Your task to perform on an android device: turn off sleep mode Image 0: 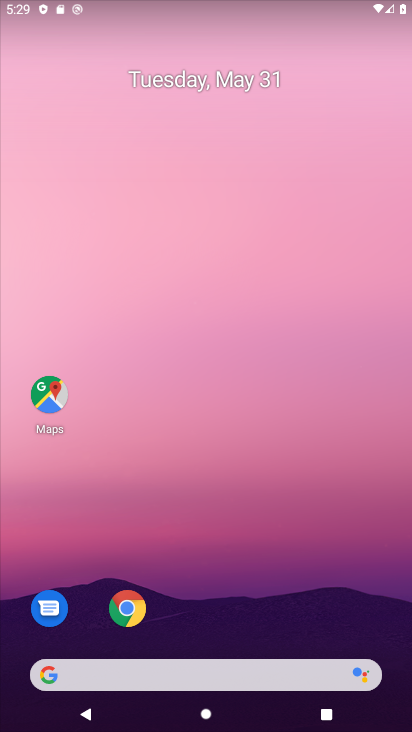
Step 0: drag from (272, 658) to (273, 111)
Your task to perform on an android device: turn off sleep mode Image 1: 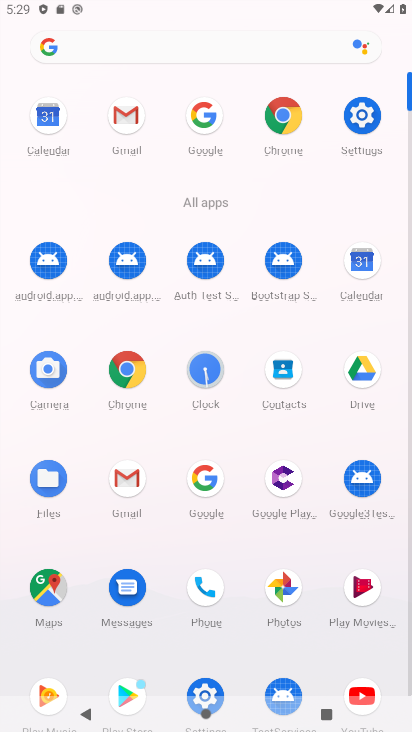
Step 1: click (363, 110)
Your task to perform on an android device: turn off sleep mode Image 2: 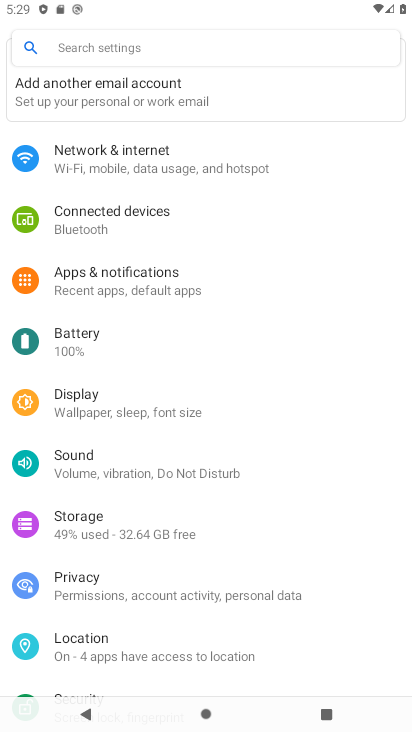
Step 2: click (122, 413)
Your task to perform on an android device: turn off sleep mode Image 3: 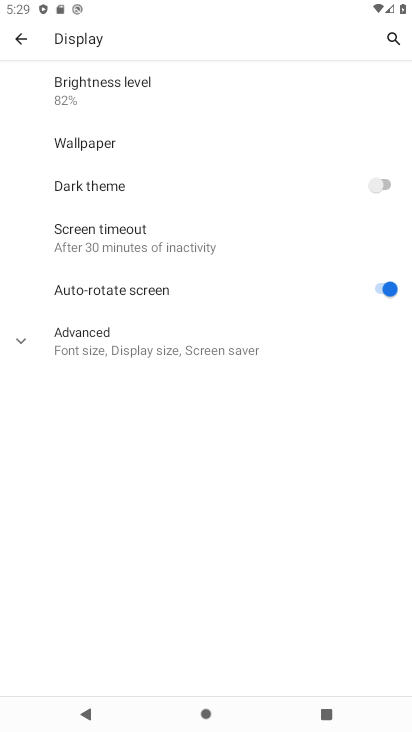
Step 3: click (90, 353)
Your task to perform on an android device: turn off sleep mode Image 4: 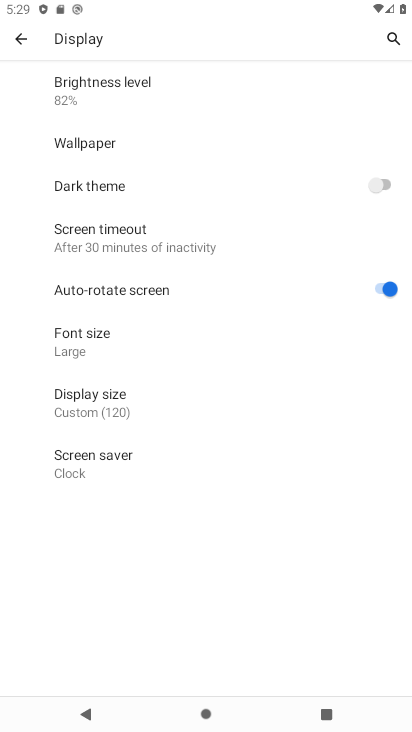
Step 4: click (172, 250)
Your task to perform on an android device: turn off sleep mode Image 5: 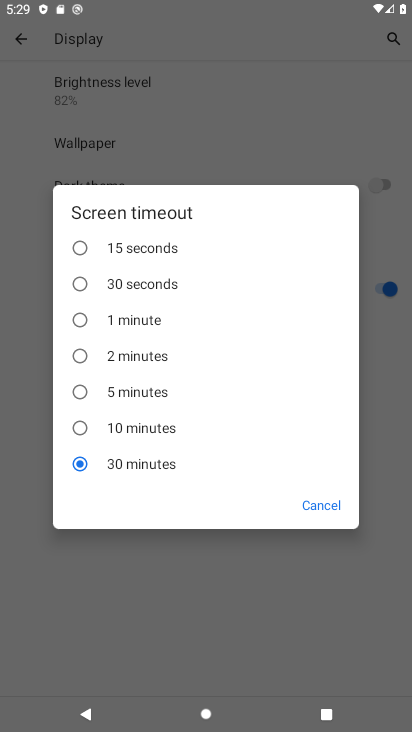
Step 5: click (166, 244)
Your task to perform on an android device: turn off sleep mode Image 6: 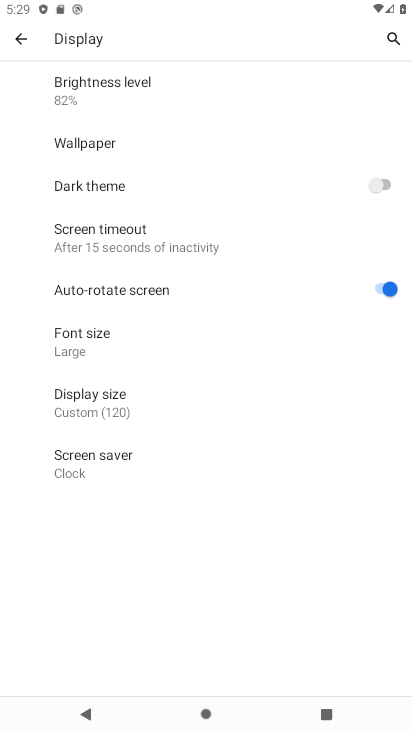
Step 6: task complete